Your task to perform on an android device: turn off picture-in-picture Image 0: 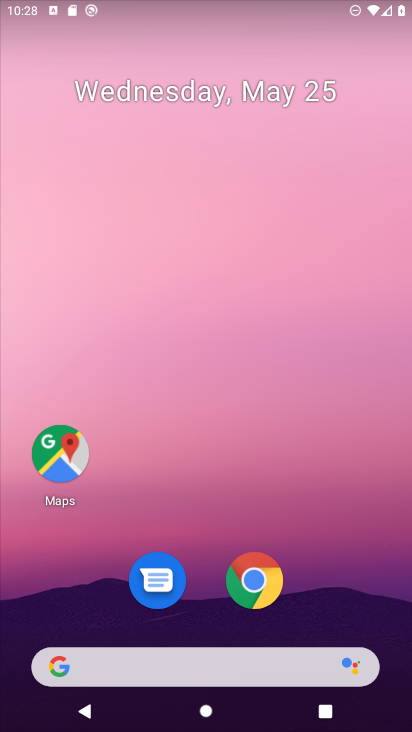
Step 0: press home button
Your task to perform on an android device: turn off picture-in-picture Image 1: 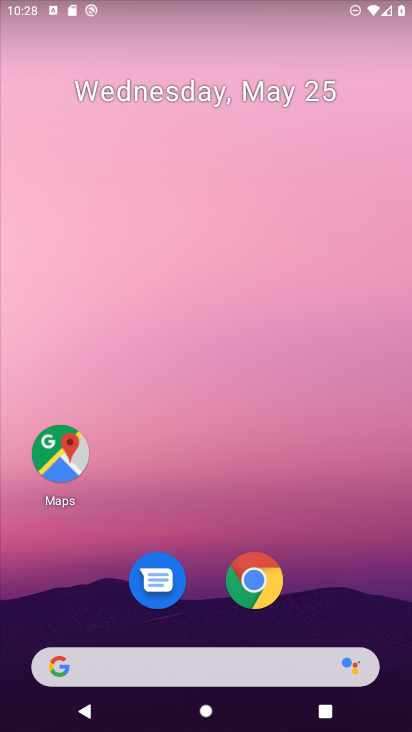
Step 1: drag from (8, 606) to (297, 71)
Your task to perform on an android device: turn off picture-in-picture Image 2: 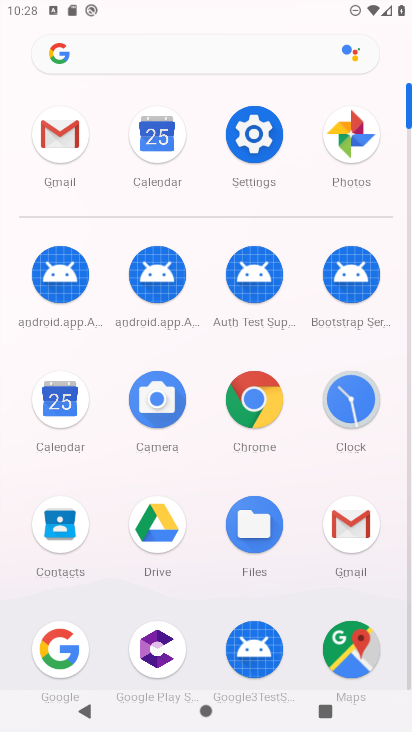
Step 2: click (246, 127)
Your task to perform on an android device: turn off picture-in-picture Image 3: 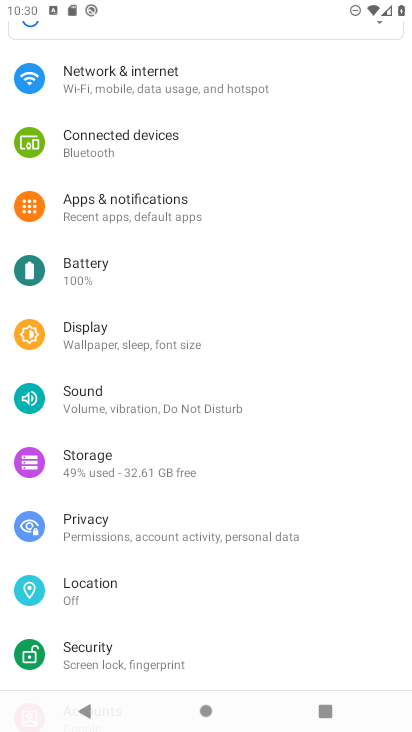
Step 3: click (110, 199)
Your task to perform on an android device: turn off picture-in-picture Image 4: 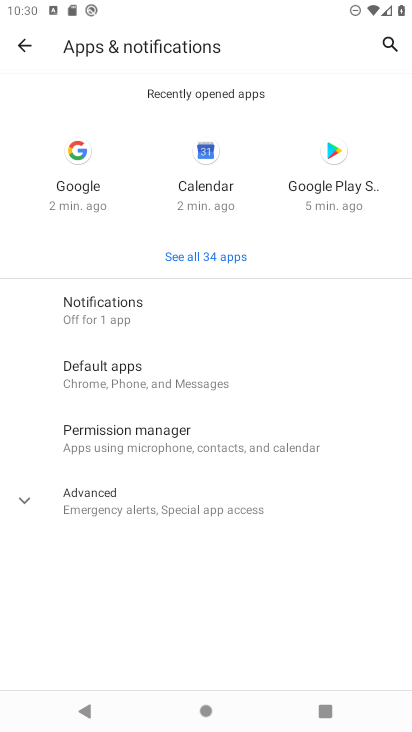
Step 4: click (114, 509)
Your task to perform on an android device: turn off picture-in-picture Image 5: 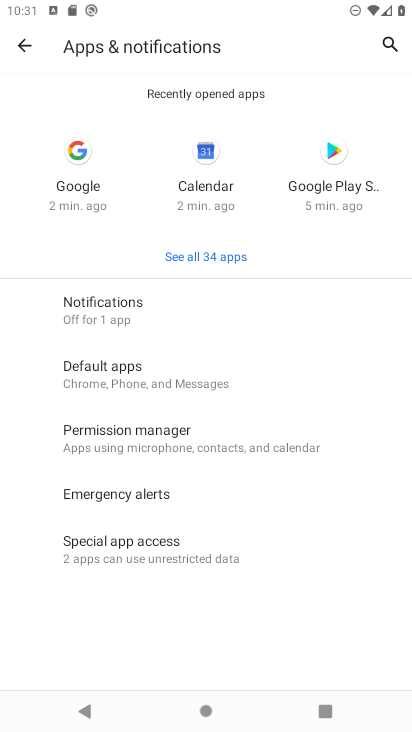
Step 5: click (130, 529)
Your task to perform on an android device: turn off picture-in-picture Image 6: 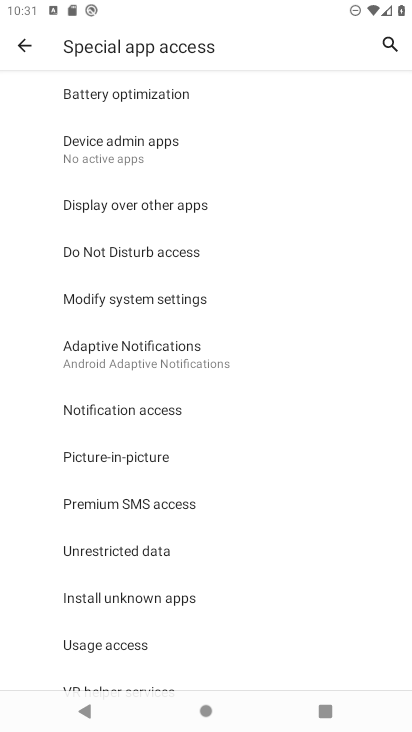
Step 6: click (97, 468)
Your task to perform on an android device: turn off picture-in-picture Image 7: 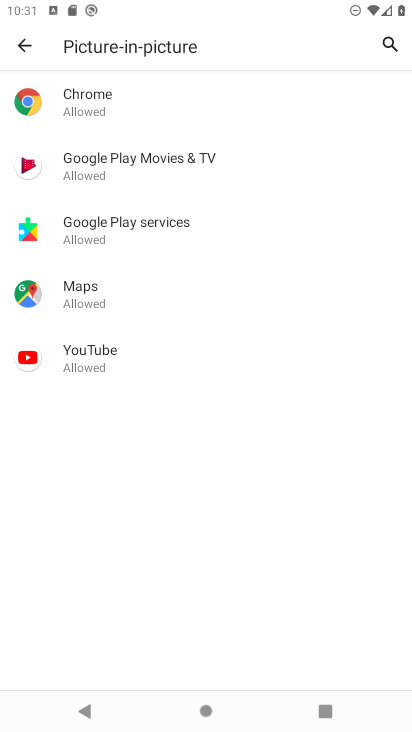
Step 7: click (120, 88)
Your task to perform on an android device: turn off picture-in-picture Image 8: 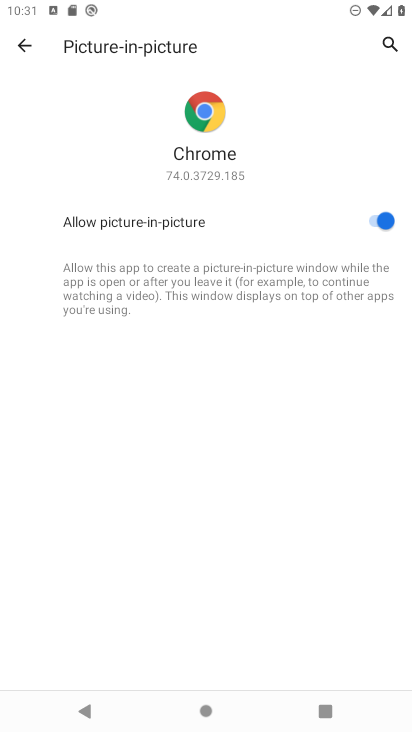
Step 8: click (391, 224)
Your task to perform on an android device: turn off picture-in-picture Image 9: 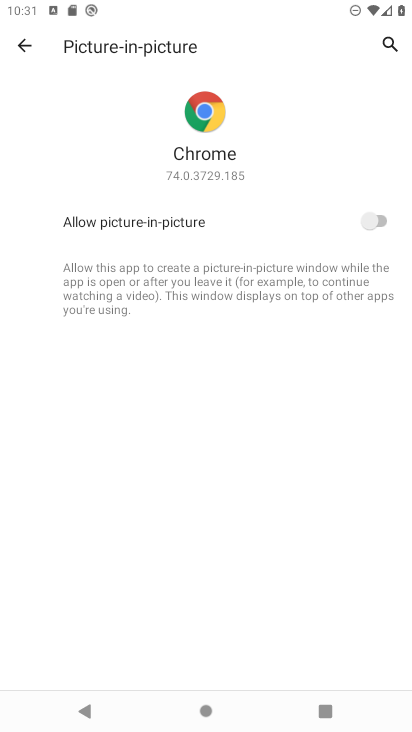
Step 9: task complete